Your task to perform on an android device: set the stopwatch Image 0: 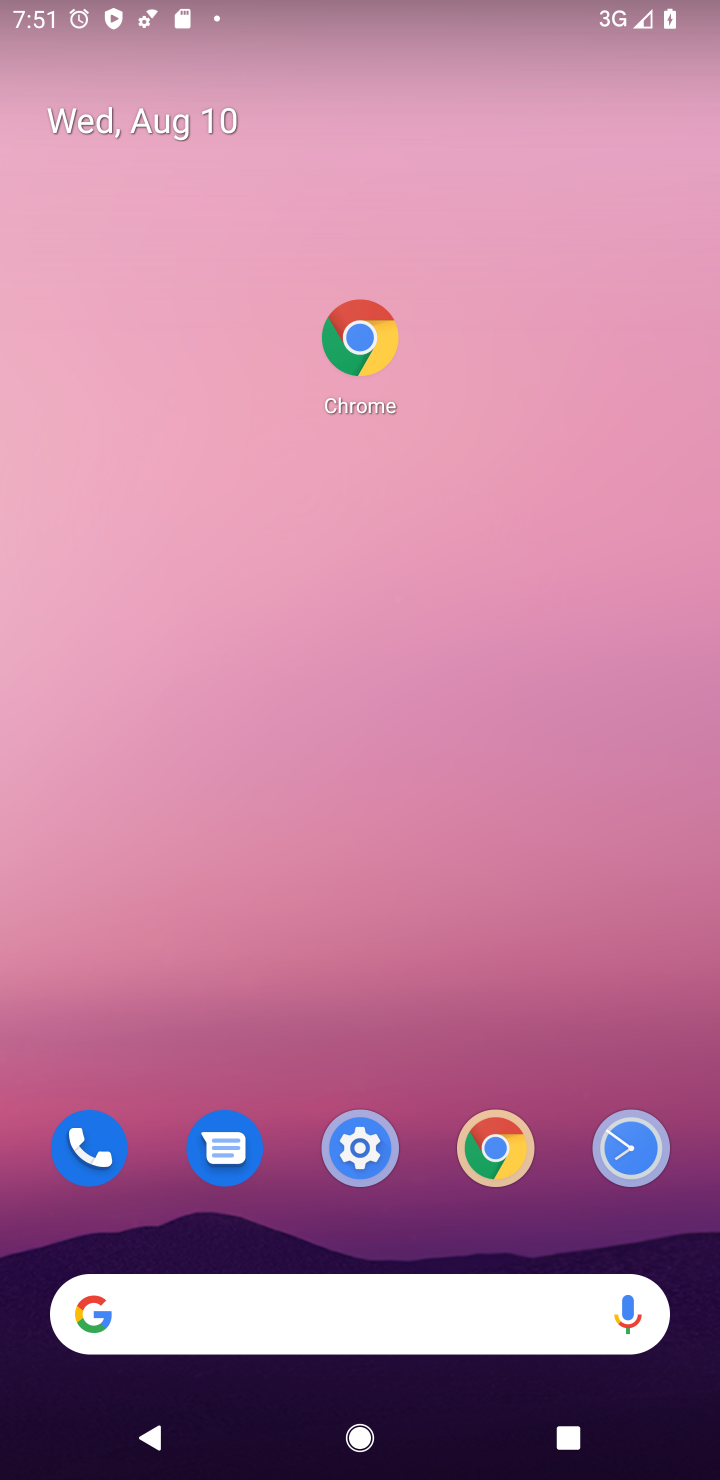
Step 0: click (646, 1138)
Your task to perform on an android device: set the stopwatch Image 1: 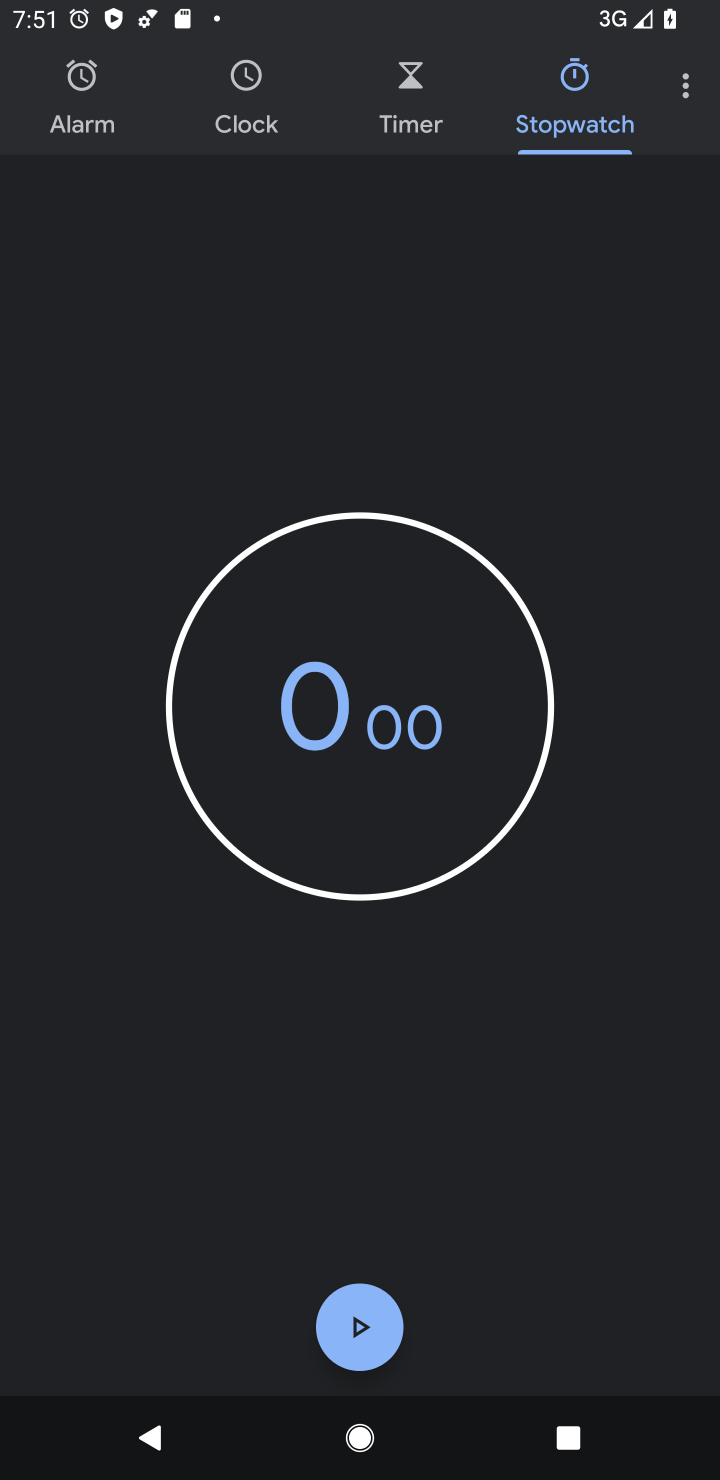
Step 1: click (358, 1349)
Your task to perform on an android device: set the stopwatch Image 2: 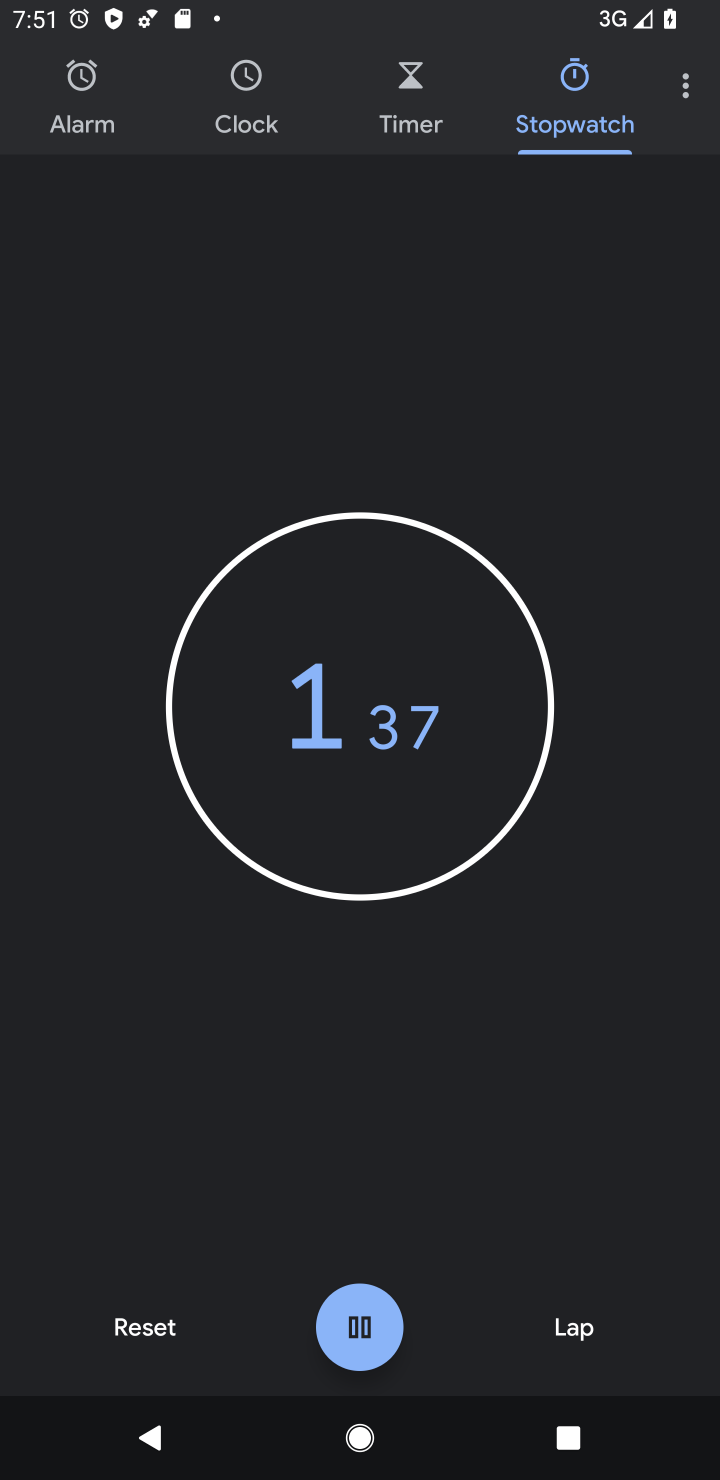
Step 2: click (358, 1349)
Your task to perform on an android device: set the stopwatch Image 3: 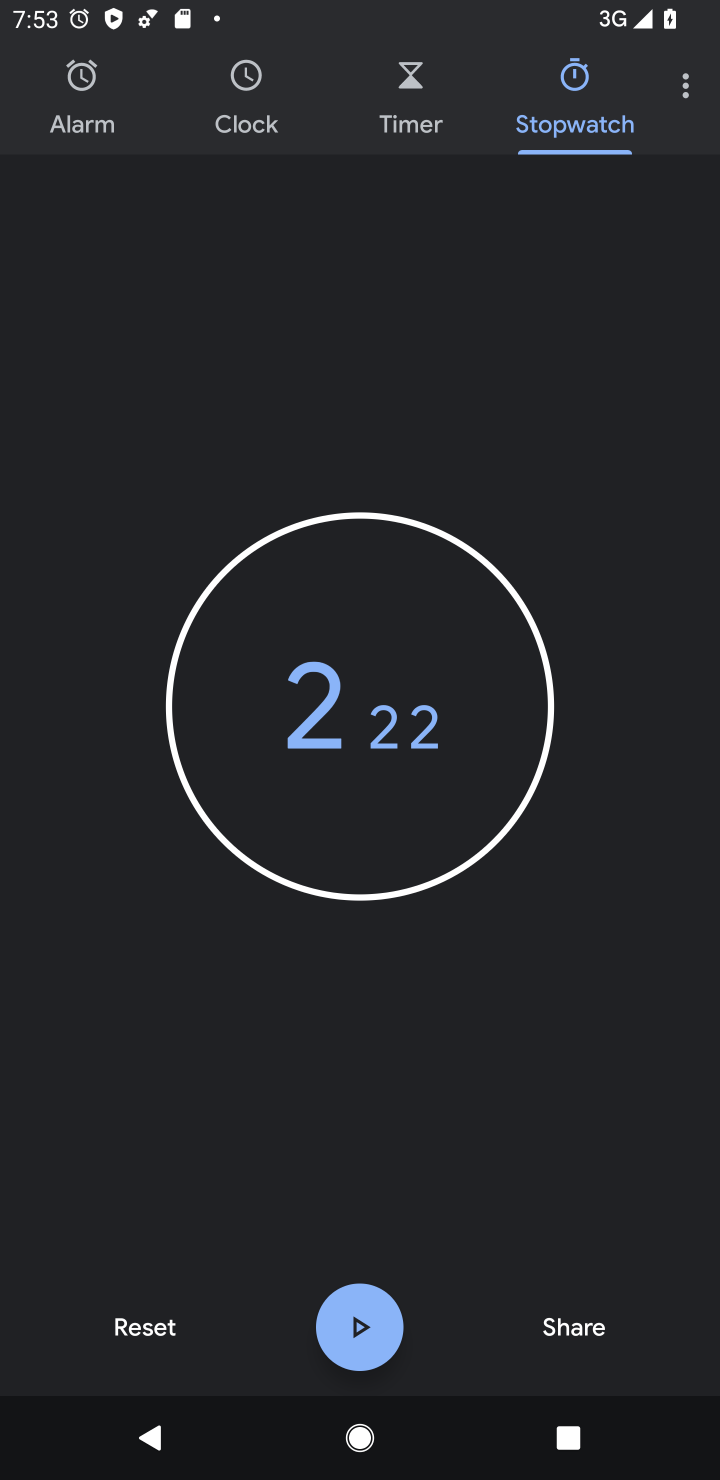
Step 3: task complete